Your task to perform on an android device: Open Chrome and go to settings Image 0: 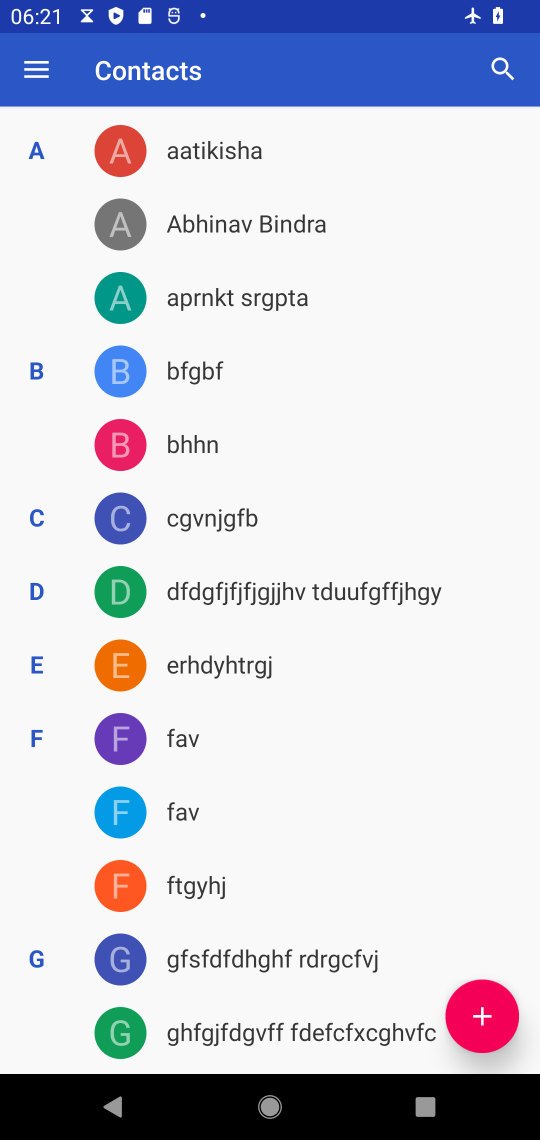
Step 0: press home button
Your task to perform on an android device: Open Chrome and go to settings Image 1: 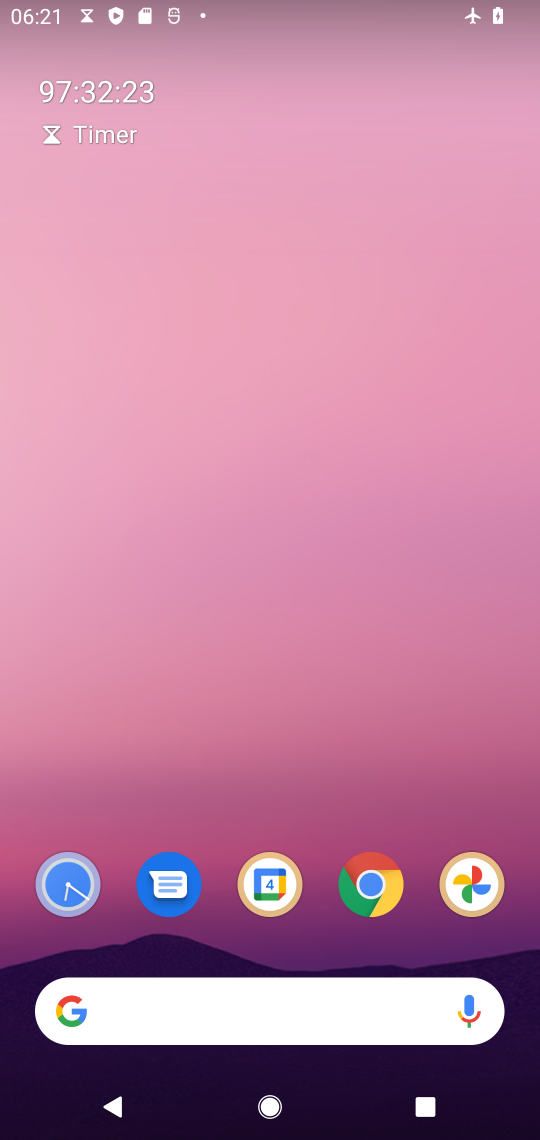
Step 1: drag from (155, 973) to (192, 202)
Your task to perform on an android device: Open Chrome and go to settings Image 2: 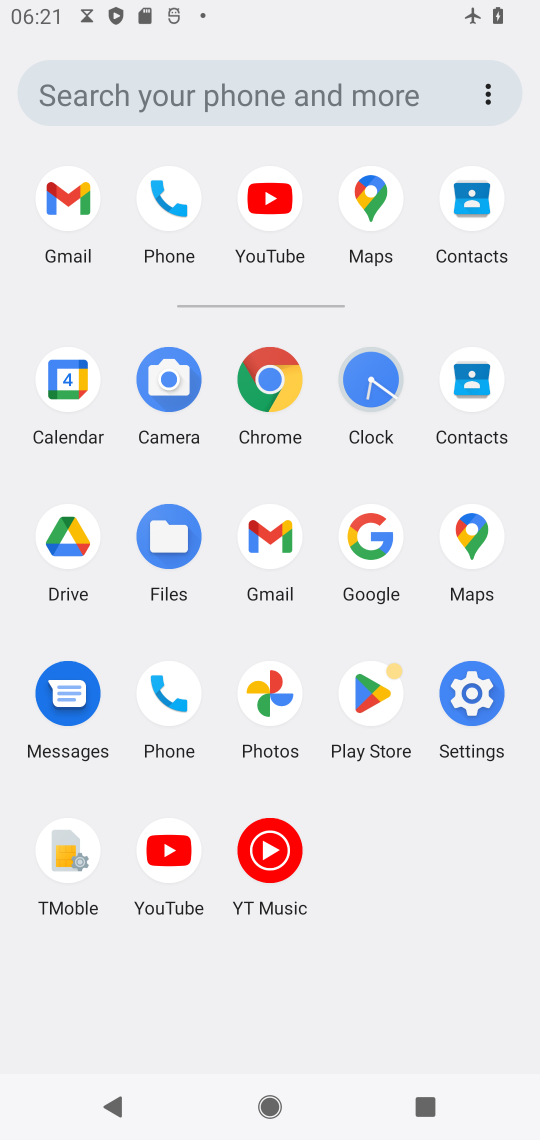
Step 2: click (255, 383)
Your task to perform on an android device: Open Chrome and go to settings Image 3: 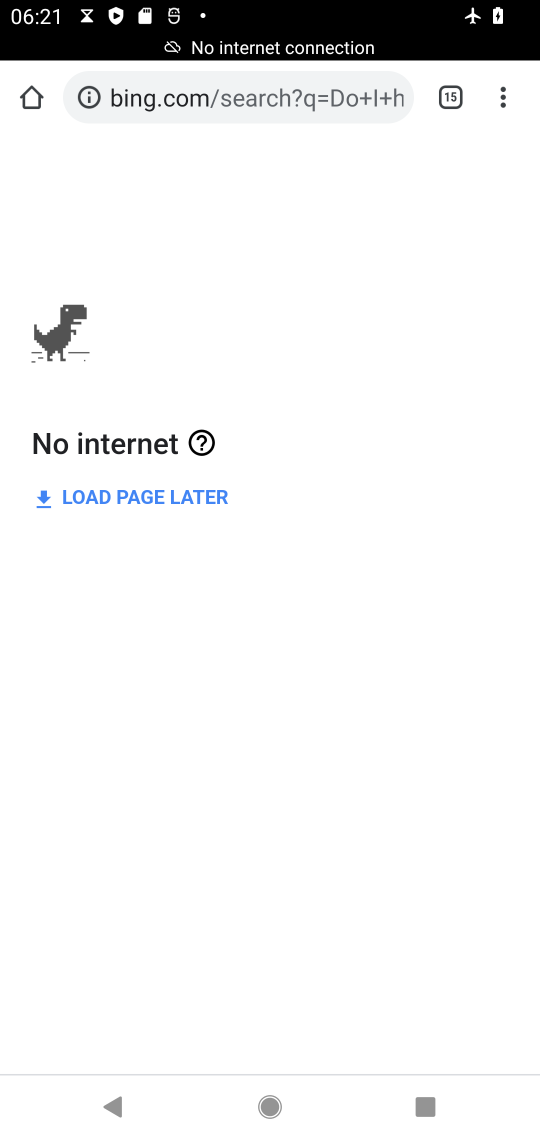
Step 3: click (503, 99)
Your task to perform on an android device: Open Chrome and go to settings Image 4: 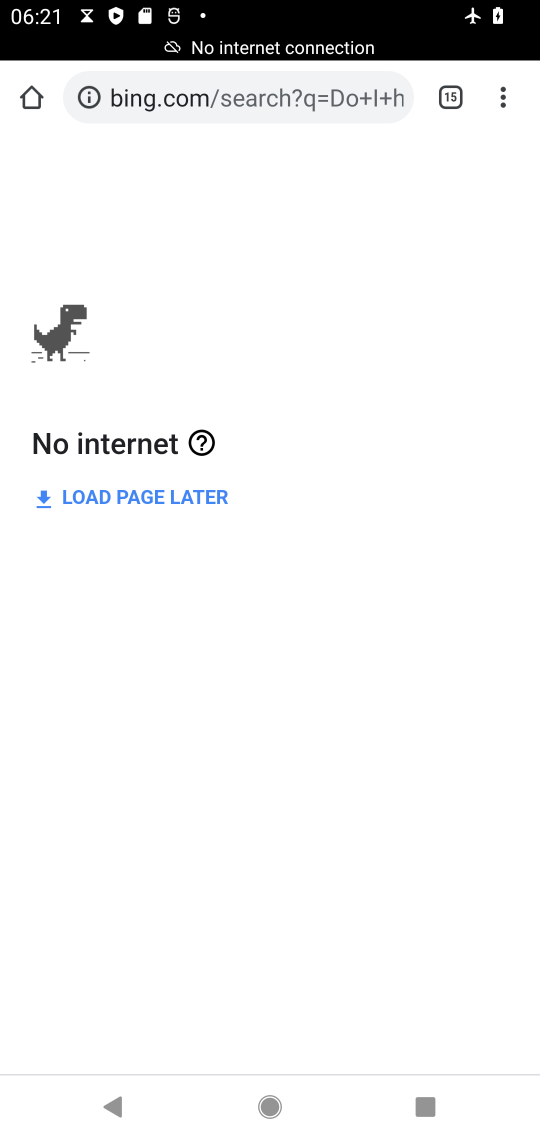
Step 4: click (515, 83)
Your task to perform on an android device: Open Chrome and go to settings Image 5: 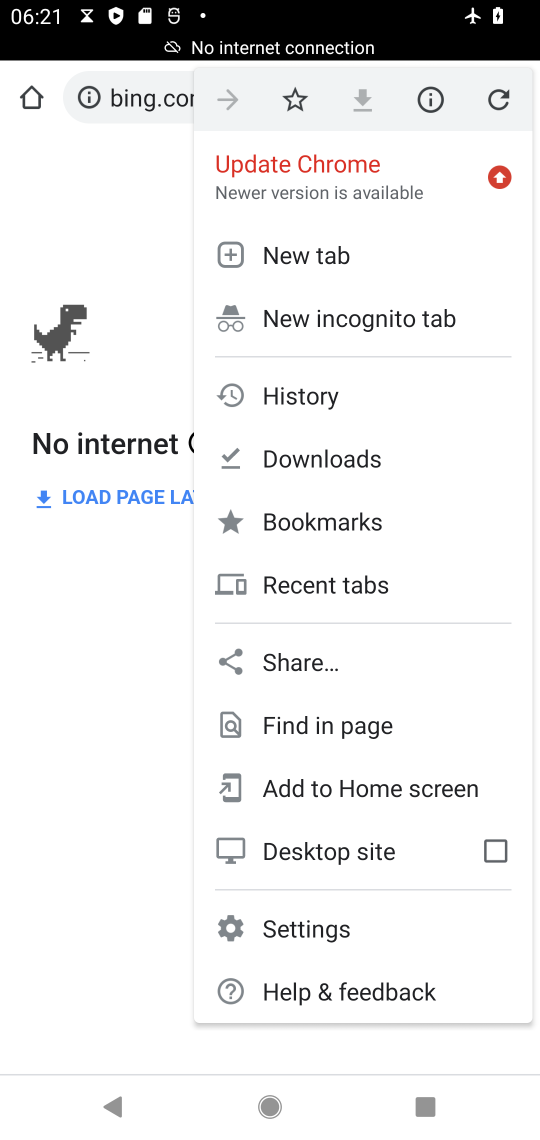
Step 5: click (311, 925)
Your task to perform on an android device: Open Chrome and go to settings Image 6: 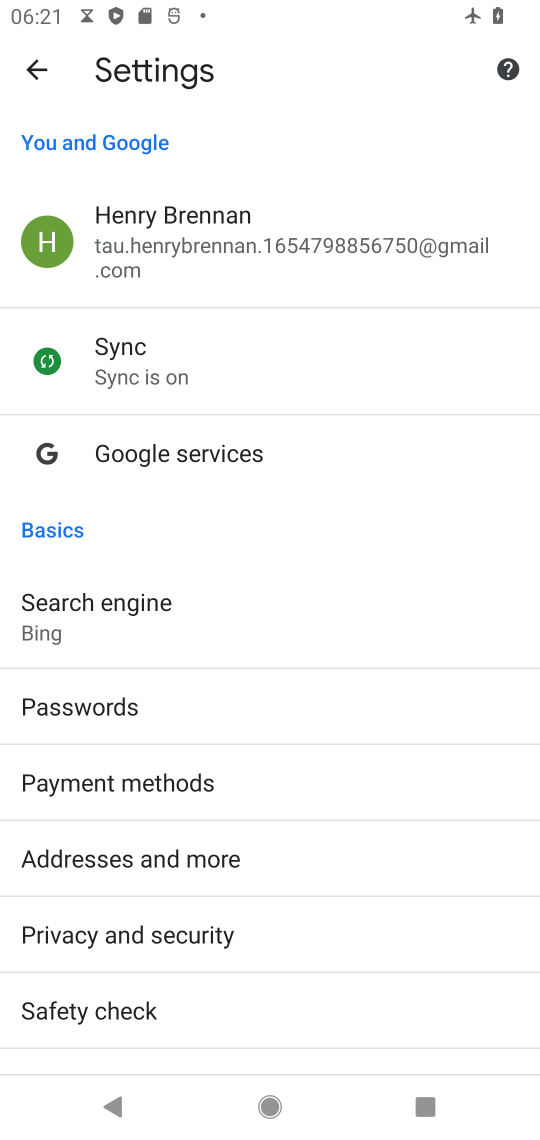
Step 6: task complete